Your task to perform on an android device: Open wifi settings Image 0: 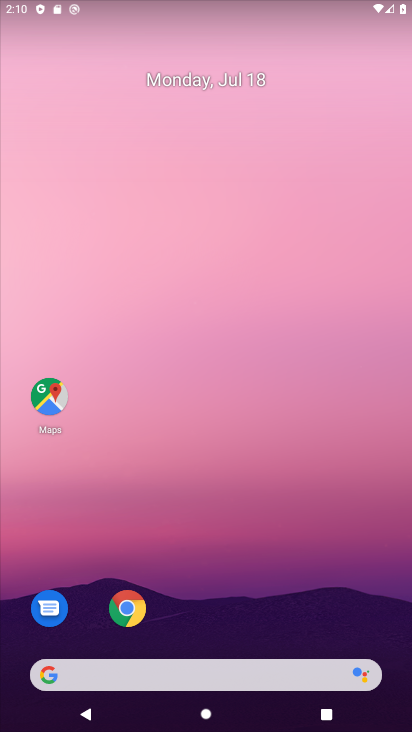
Step 0: drag from (236, 635) to (297, 50)
Your task to perform on an android device: Open wifi settings Image 1: 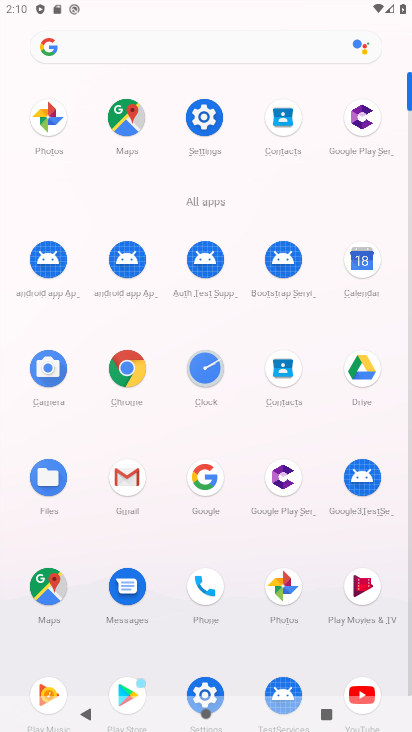
Step 1: click (197, 114)
Your task to perform on an android device: Open wifi settings Image 2: 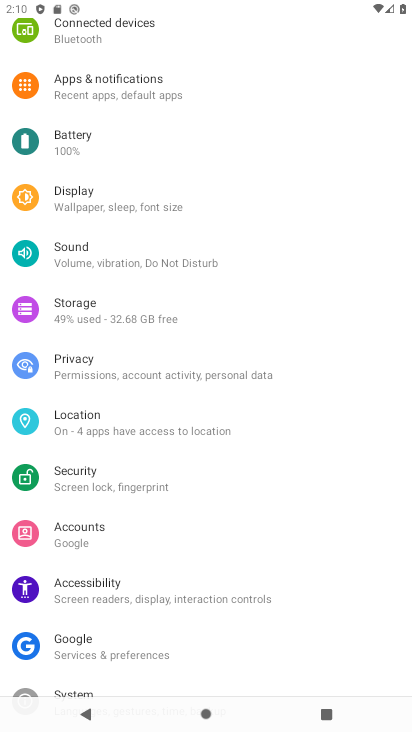
Step 2: drag from (110, 170) to (100, 464)
Your task to perform on an android device: Open wifi settings Image 3: 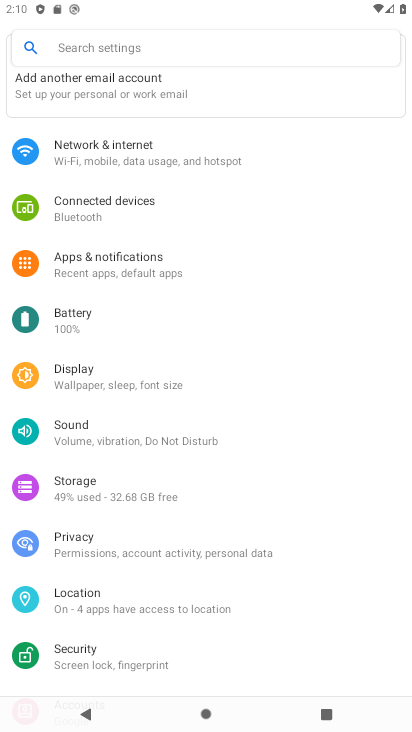
Step 3: click (149, 150)
Your task to perform on an android device: Open wifi settings Image 4: 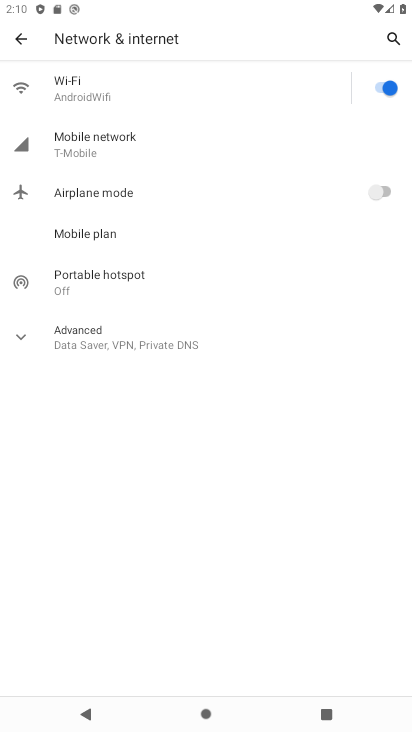
Step 4: click (75, 92)
Your task to perform on an android device: Open wifi settings Image 5: 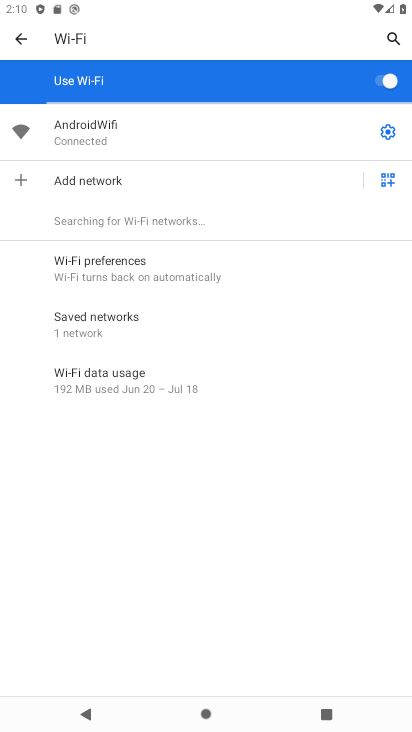
Step 5: task complete